Your task to perform on an android device: turn off notifications in google photos Image 0: 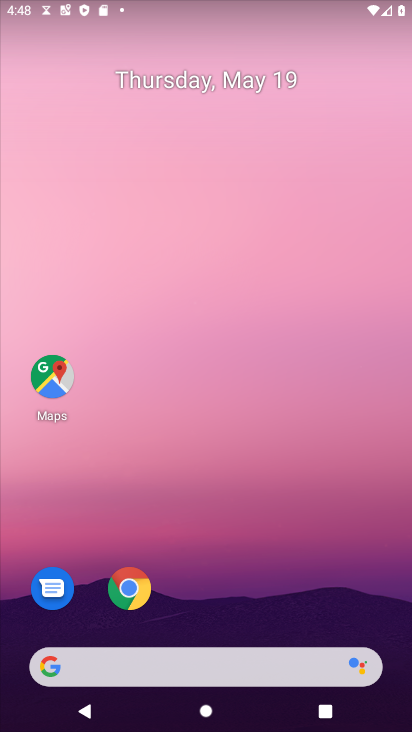
Step 0: drag from (231, 625) to (242, 231)
Your task to perform on an android device: turn off notifications in google photos Image 1: 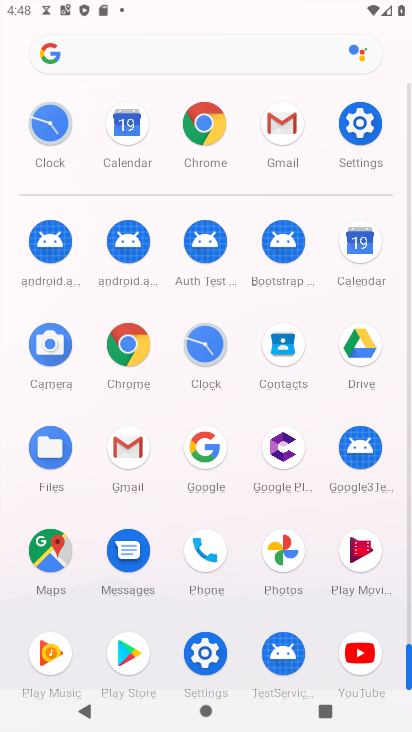
Step 1: click (276, 576)
Your task to perform on an android device: turn off notifications in google photos Image 2: 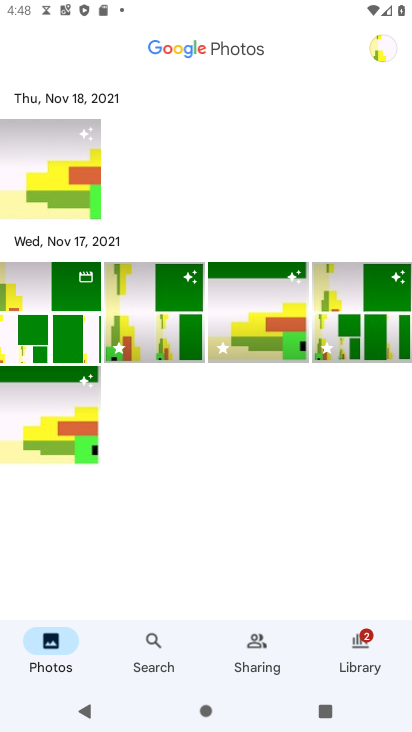
Step 2: click (383, 40)
Your task to perform on an android device: turn off notifications in google photos Image 3: 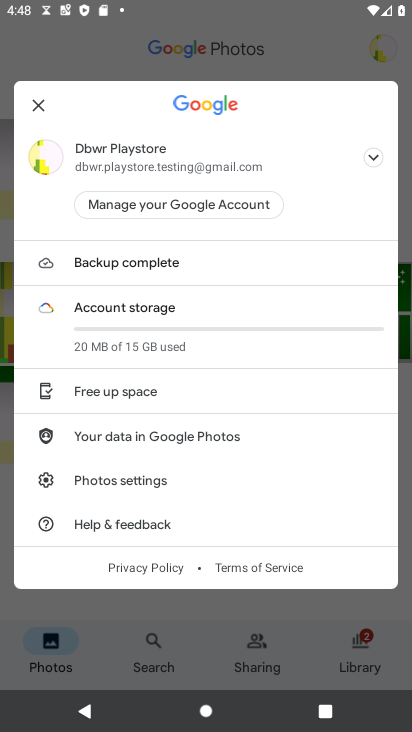
Step 3: click (150, 483)
Your task to perform on an android device: turn off notifications in google photos Image 4: 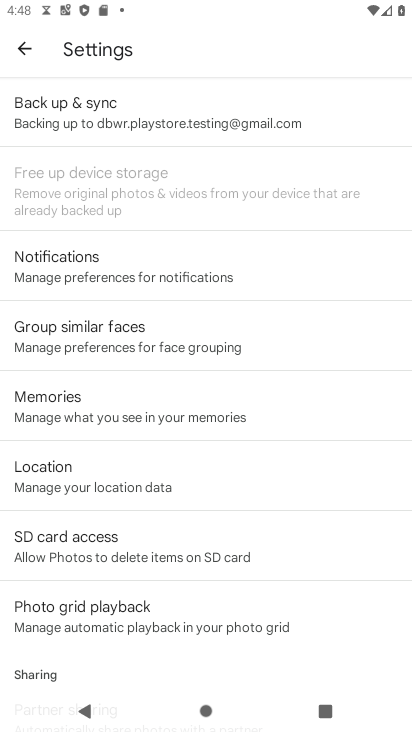
Step 4: click (111, 278)
Your task to perform on an android device: turn off notifications in google photos Image 5: 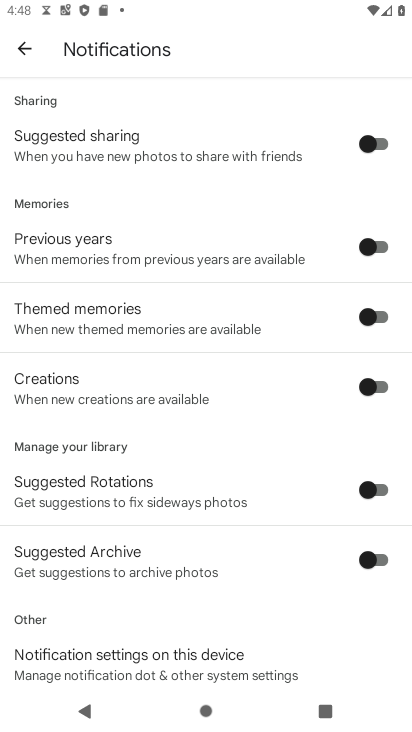
Step 5: drag from (180, 497) to (225, 118)
Your task to perform on an android device: turn off notifications in google photos Image 6: 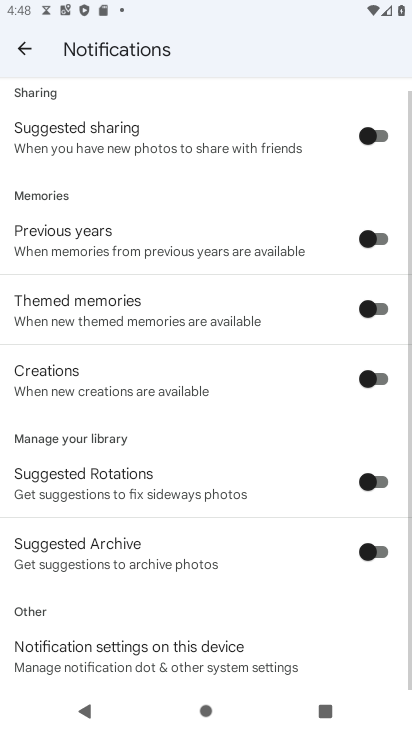
Step 6: click (186, 659)
Your task to perform on an android device: turn off notifications in google photos Image 7: 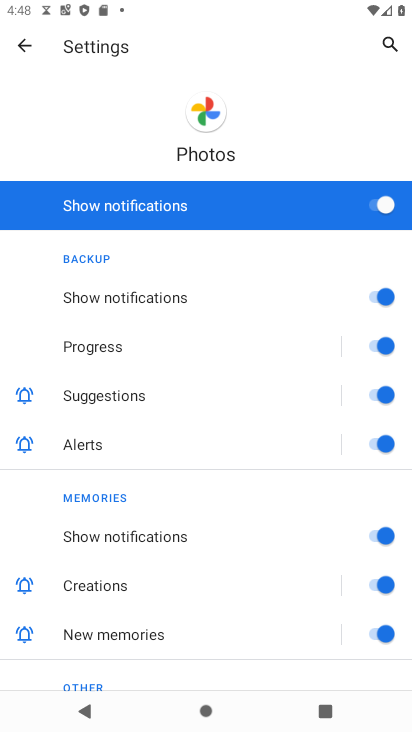
Step 7: click (367, 186)
Your task to perform on an android device: turn off notifications in google photos Image 8: 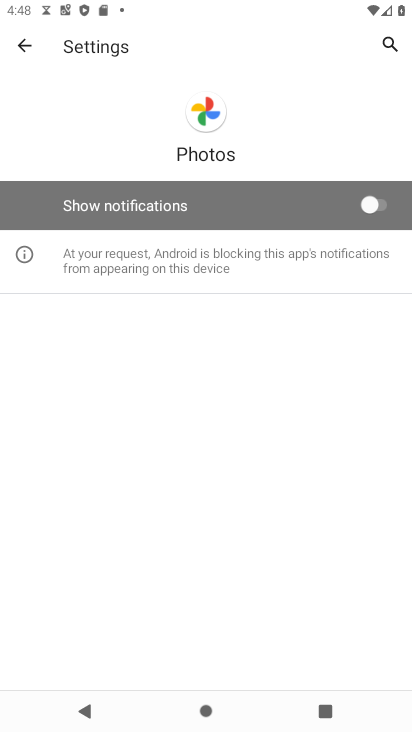
Step 8: task complete